Your task to perform on an android device: Open the web browser Image 0: 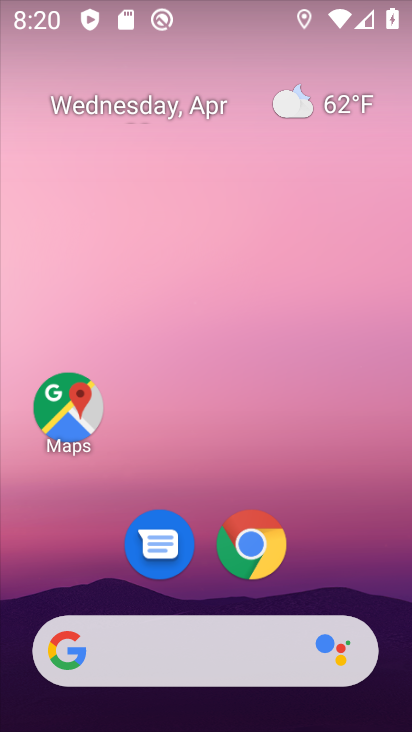
Step 0: click (254, 534)
Your task to perform on an android device: Open the web browser Image 1: 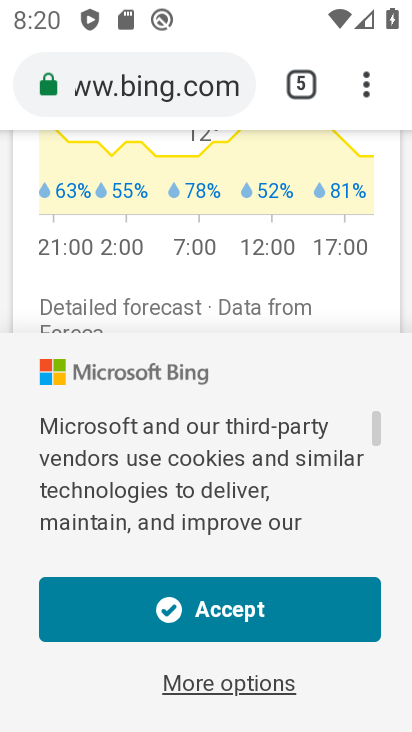
Step 1: task complete